Your task to perform on an android device: turn vacation reply on in the gmail app Image 0: 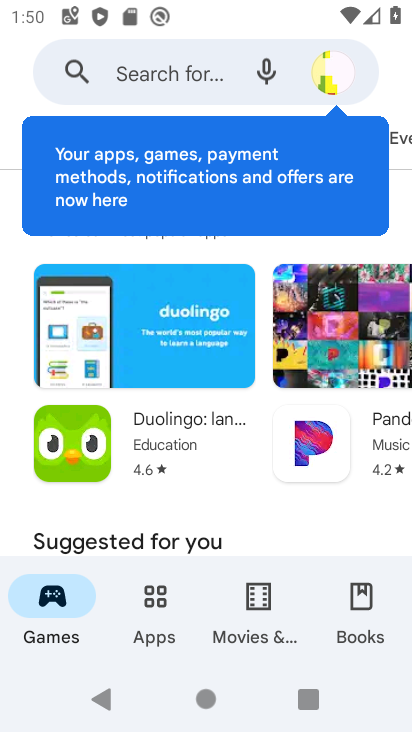
Step 0: press home button
Your task to perform on an android device: turn vacation reply on in the gmail app Image 1: 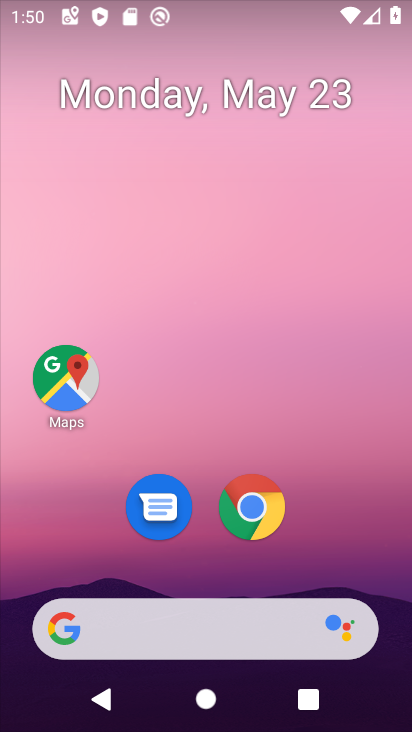
Step 1: drag from (216, 724) to (225, 233)
Your task to perform on an android device: turn vacation reply on in the gmail app Image 2: 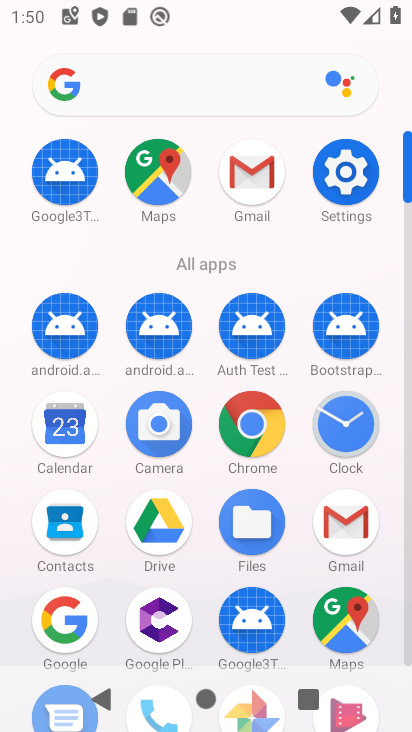
Step 2: click (252, 179)
Your task to perform on an android device: turn vacation reply on in the gmail app Image 3: 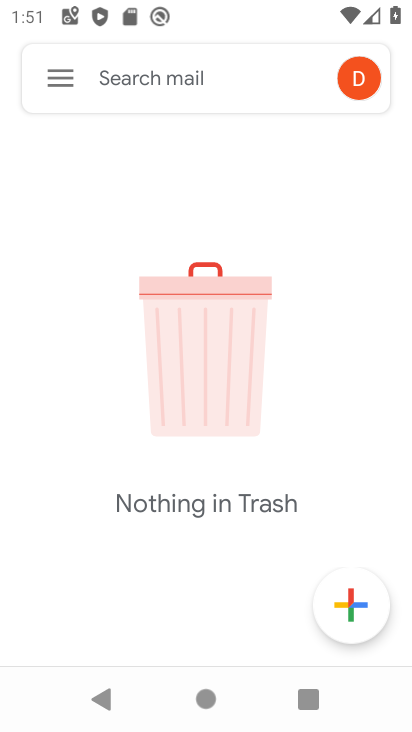
Step 3: click (64, 76)
Your task to perform on an android device: turn vacation reply on in the gmail app Image 4: 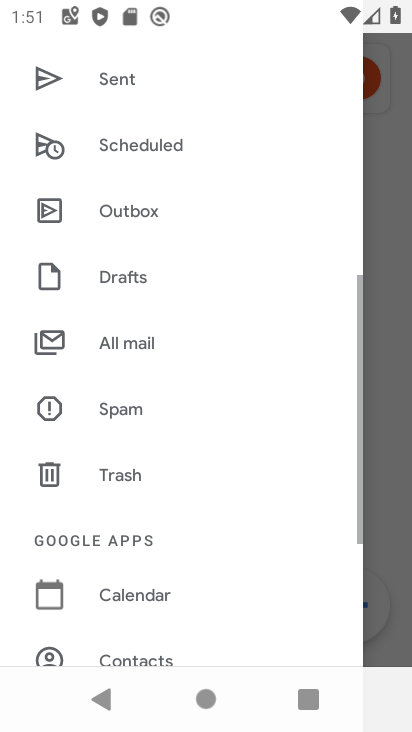
Step 4: drag from (134, 629) to (121, 234)
Your task to perform on an android device: turn vacation reply on in the gmail app Image 5: 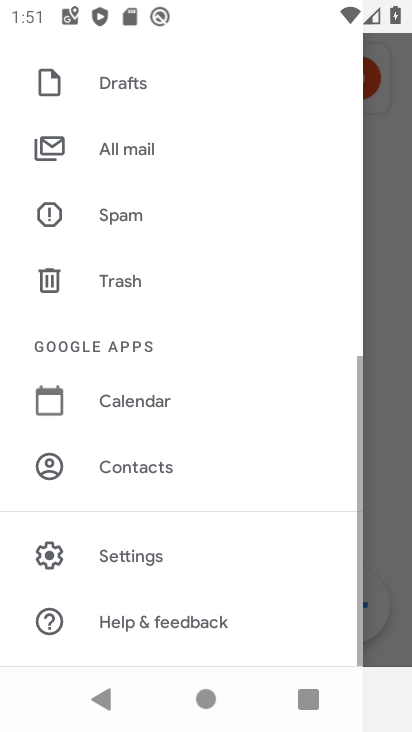
Step 5: click (128, 551)
Your task to perform on an android device: turn vacation reply on in the gmail app Image 6: 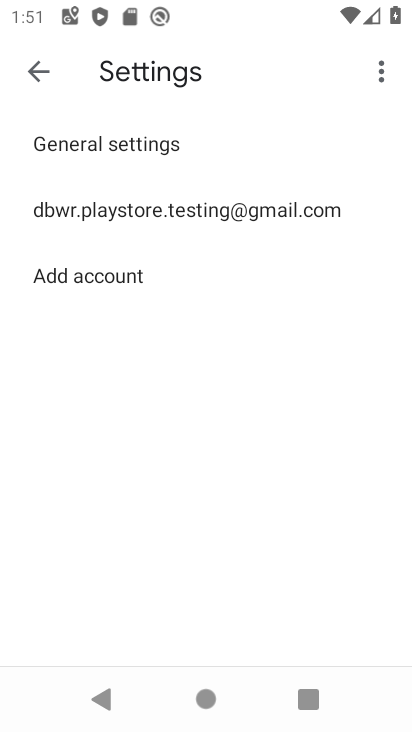
Step 6: click (160, 206)
Your task to perform on an android device: turn vacation reply on in the gmail app Image 7: 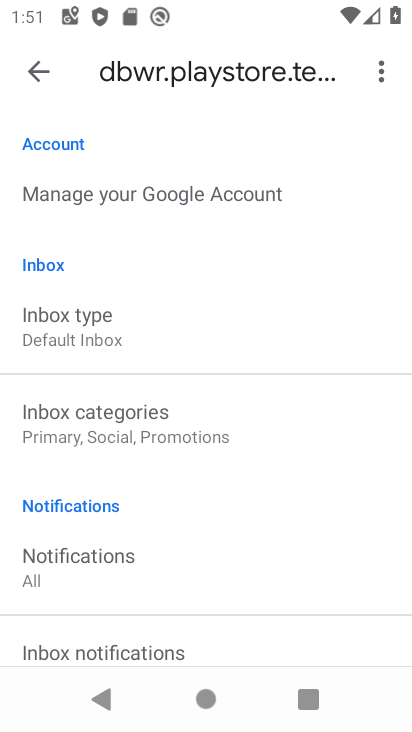
Step 7: drag from (105, 607) to (114, 218)
Your task to perform on an android device: turn vacation reply on in the gmail app Image 8: 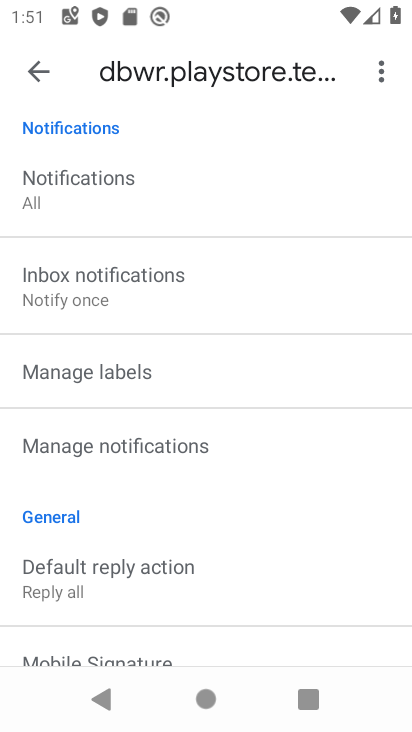
Step 8: drag from (180, 626) to (189, 266)
Your task to perform on an android device: turn vacation reply on in the gmail app Image 9: 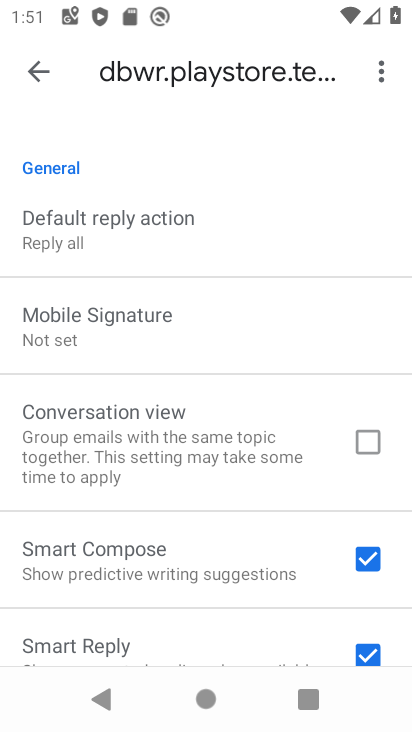
Step 9: drag from (256, 622) to (225, 225)
Your task to perform on an android device: turn vacation reply on in the gmail app Image 10: 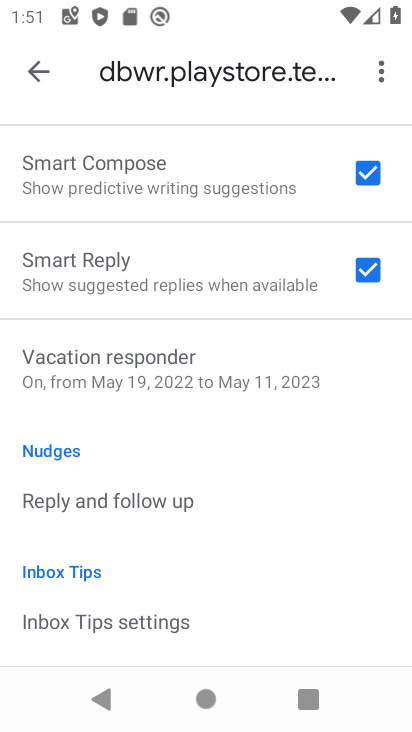
Step 10: click (140, 373)
Your task to perform on an android device: turn vacation reply on in the gmail app Image 11: 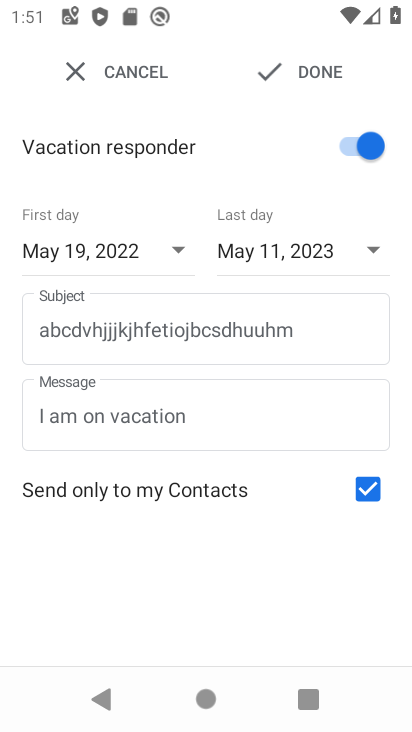
Step 11: task complete